Your task to perform on an android device: Turn off the flashlight Image 0: 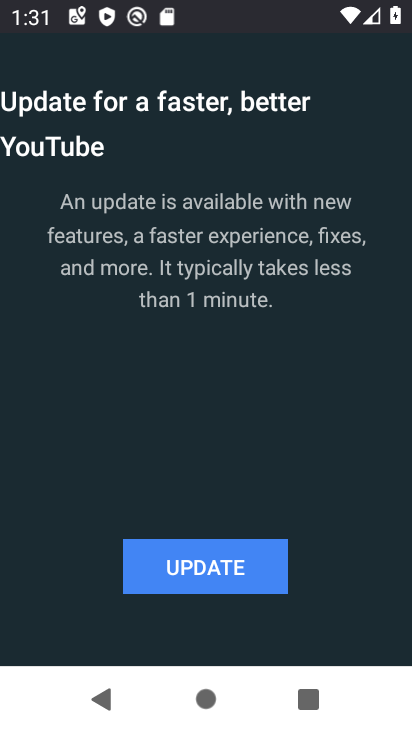
Step 0: press home button
Your task to perform on an android device: Turn off the flashlight Image 1: 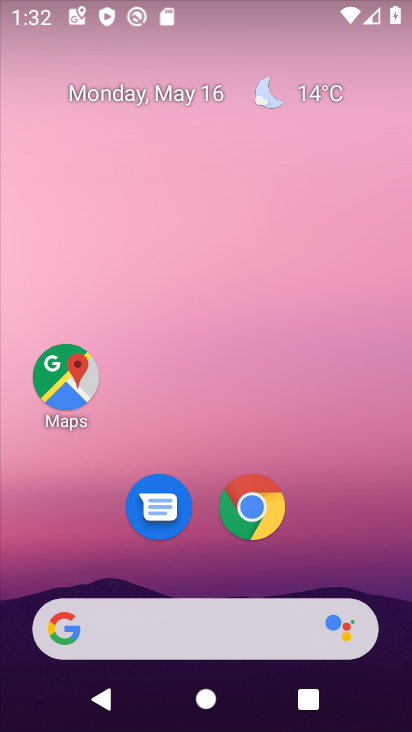
Step 1: task complete